Your task to perform on an android device: turn off improve location accuracy Image 0: 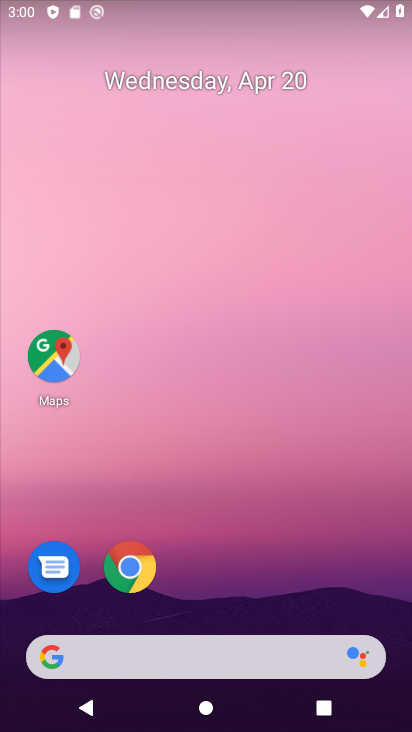
Step 0: drag from (323, 569) to (322, 145)
Your task to perform on an android device: turn off improve location accuracy Image 1: 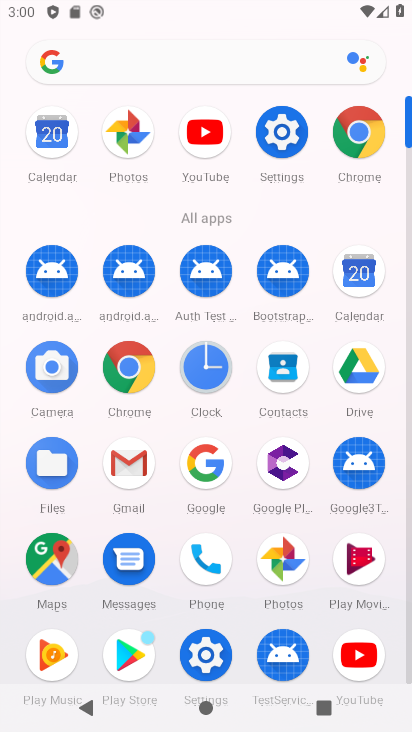
Step 1: click (275, 144)
Your task to perform on an android device: turn off improve location accuracy Image 2: 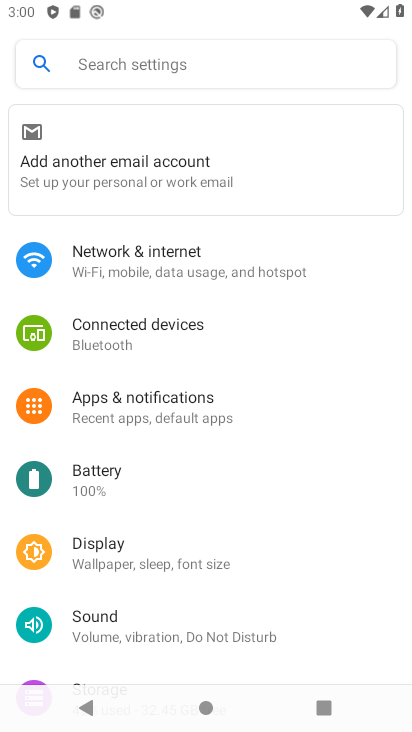
Step 2: drag from (266, 580) to (251, 159)
Your task to perform on an android device: turn off improve location accuracy Image 3: 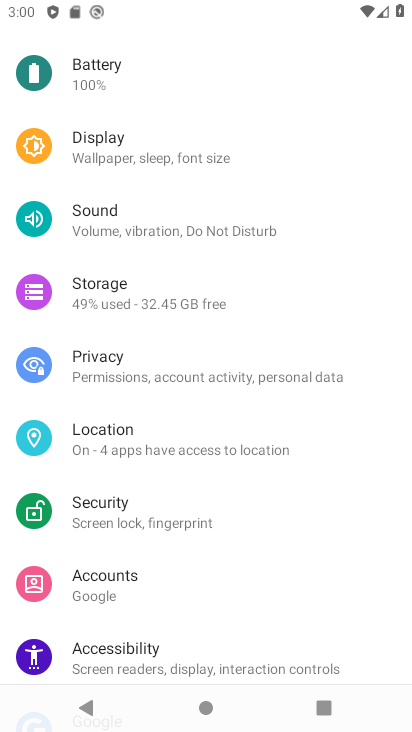
Step 3: click (223, 439)
Your task to perform on an android device: turn off improve location accuracy Image 4: 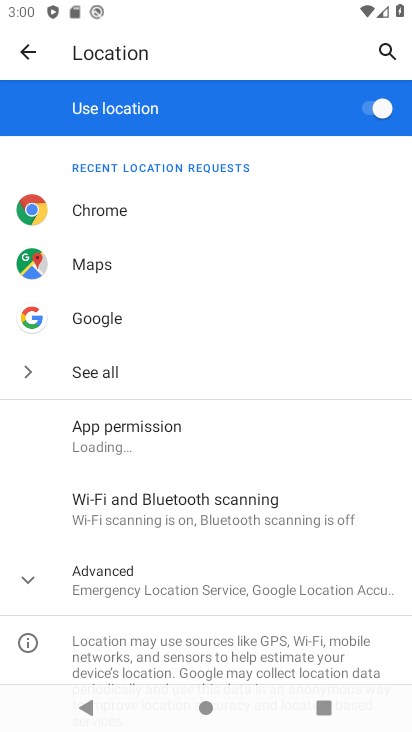
Step 4: drag from (272, 567) to (284, 277)
Your task to perform on an android device: turn off improve location accuracy Image 5: 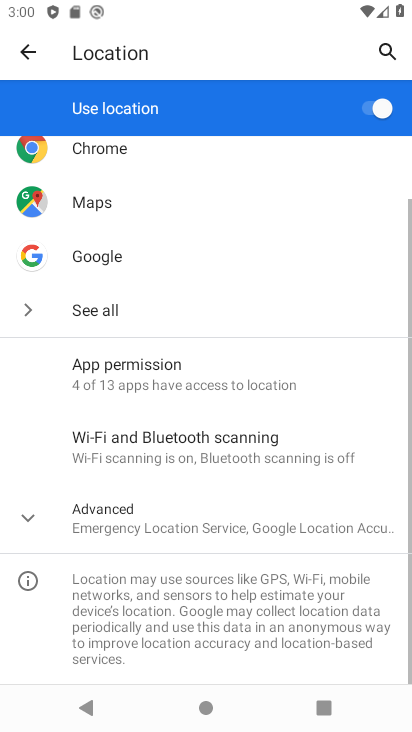
Step 5: click (279, 503)
Your task to perform on an android device: turn off improve location accuracy Image 6: 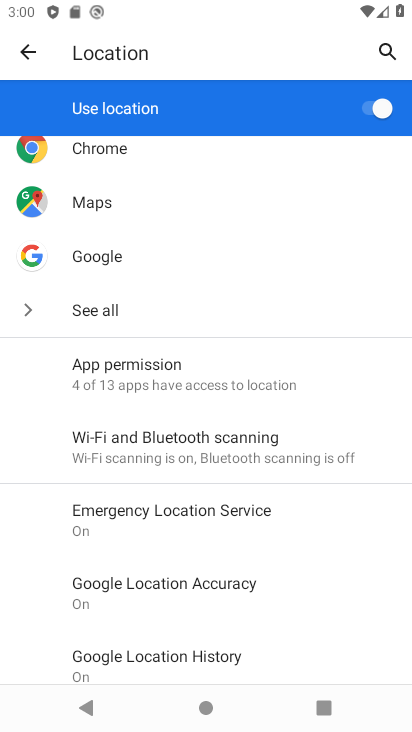
Step 6: click (272, 593)
Your task to perform on an android device: turn off improve location accuracy Image 7: 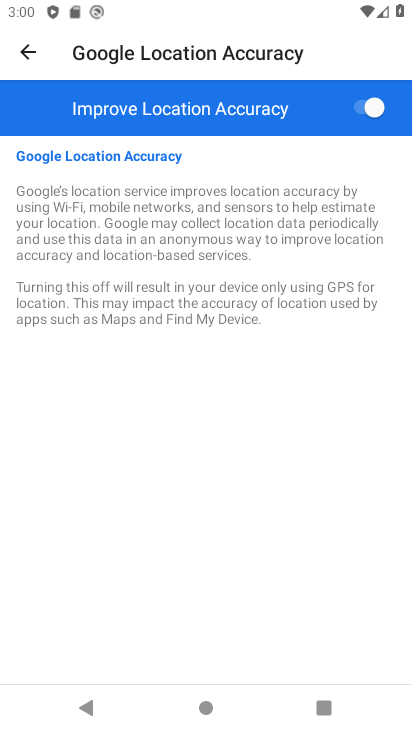
Step 7: click (356, 104)
Your task to perform on an android device: turn off improve location accuracy Image 8: 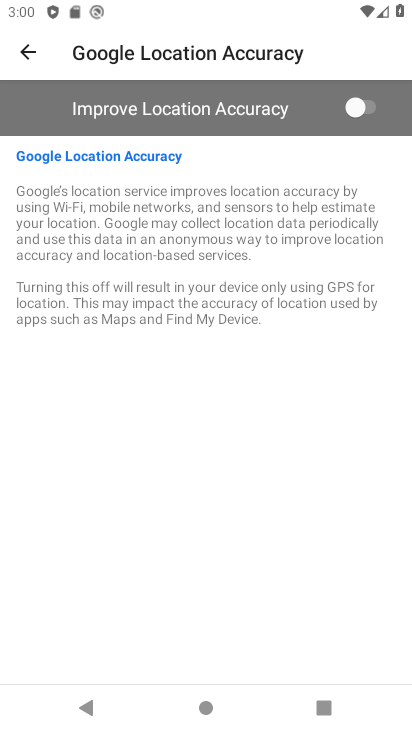
Step 8: task complete